Your task to perform on an android device: Search for pizza restaurants on Maps Image 0: 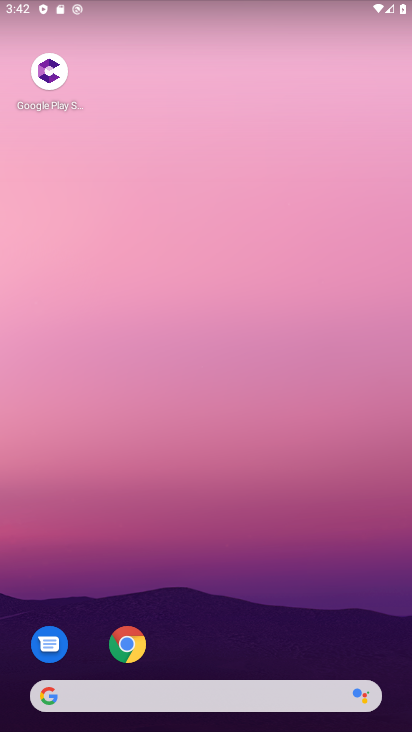
Step 0: drag from (233, 634) to (206, 105)
Your task to perform on an android device: Search for pizza restaurants on Maps Image 1: 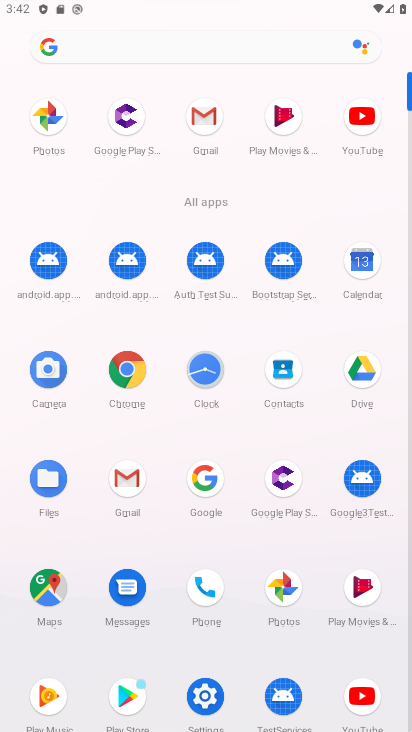
Step 1: click (51, 580)
Your task to perform on an android device: Search for pizza restaurants on Maps Image 2: 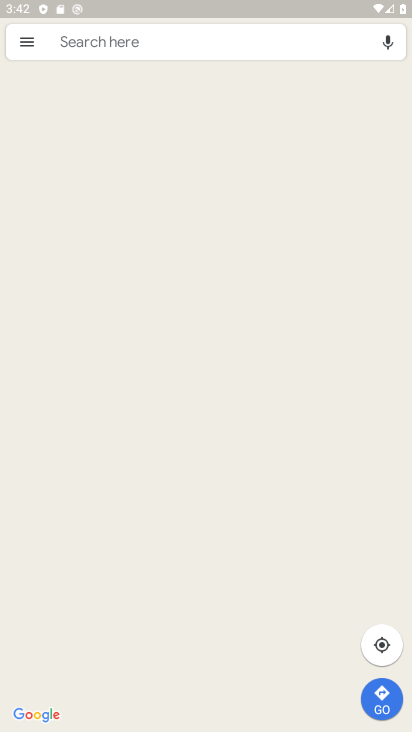
Step 2: click (222, 46)
Your task to perform on an android device: Search for pizza restaurants on Maps Image 3: 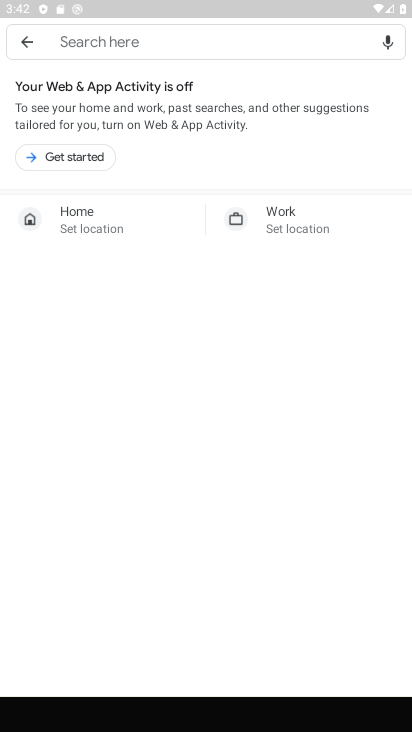
Step 3: click (213, 46)
Your task to perform on an android device: Search for pizza restaurants on Maps Image 4: 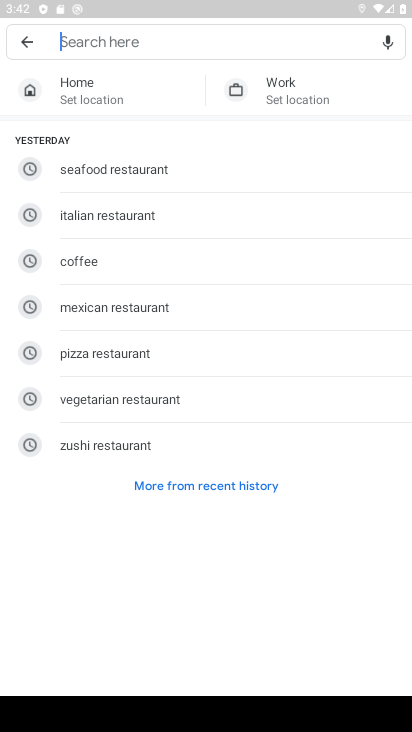
Step 4: click (175, 350)
Your task to perform on an android device: Search for pizza restaurants on Maps Image 5: 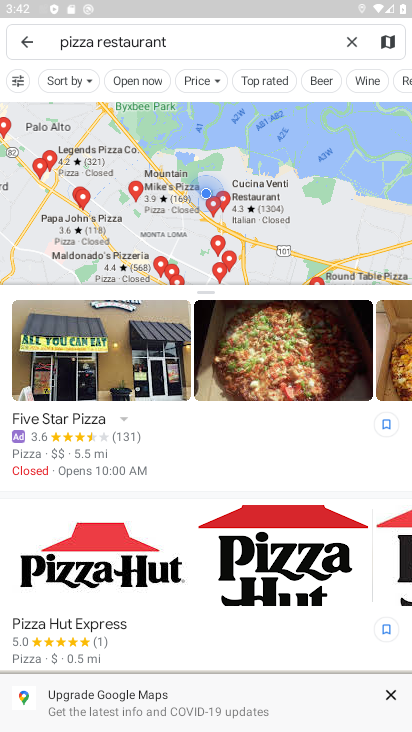
Step 5: task complete